Your task to perform on an android device: Open Android settings Image 0: 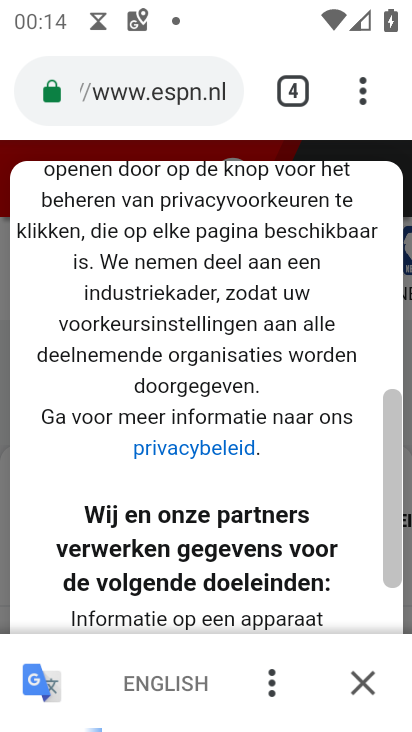
Step 0: press home button
Your task to perform on an android device: Open Android settings Image 1: 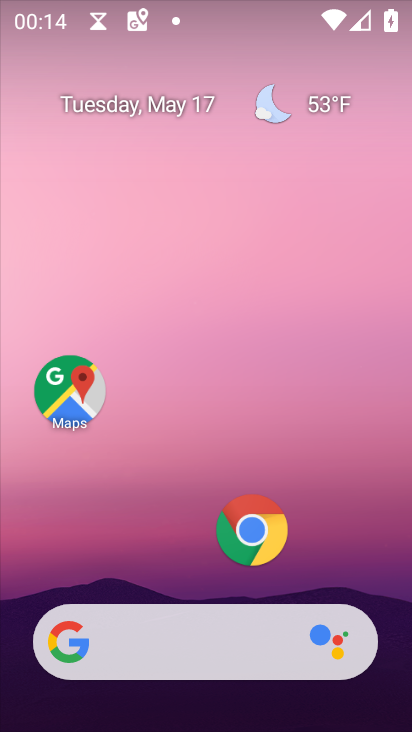
Step 1: drag from (290, 575) to (232, 63)
Your task to perform on an android device: Open Android settings Image 2: 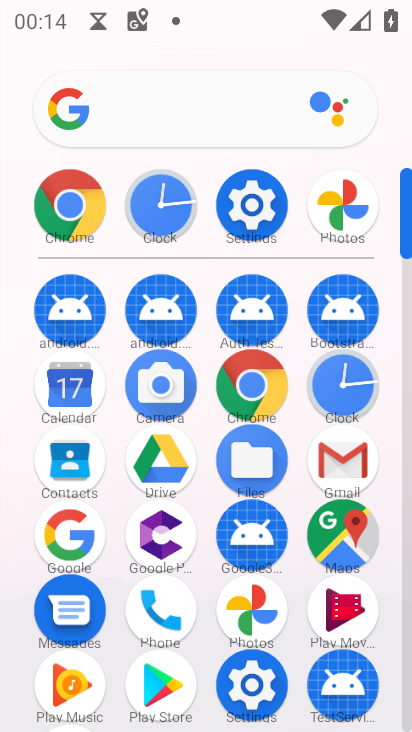
Step 2: click (258, 195)
Your task to perform on an android device: Open Android settings Image 3: 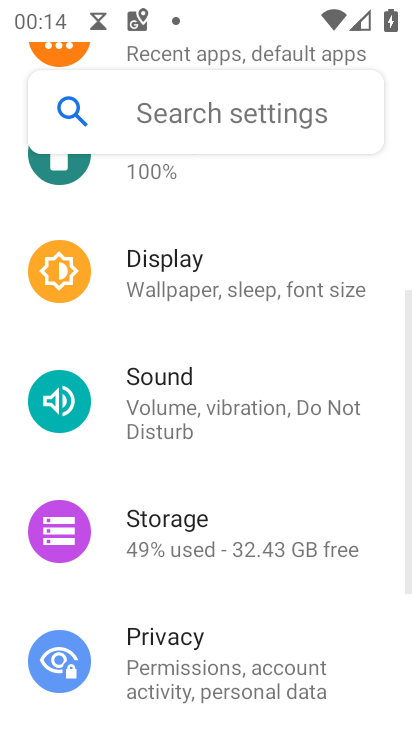
Step 3: drag from (251, 537) to (278, 371)
Your task to perform on an android device: Open Android settings Image 4: 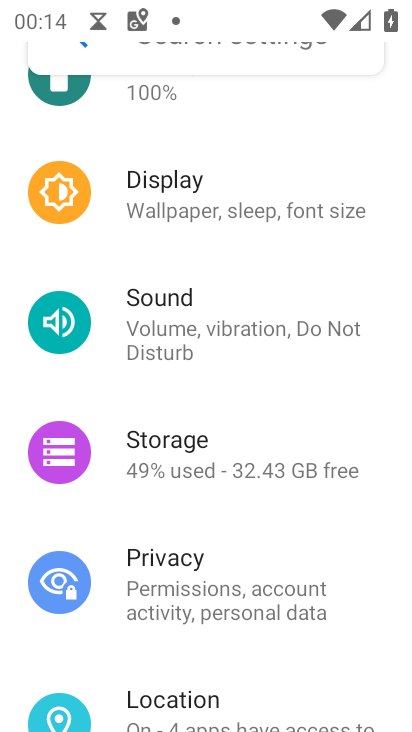
Step 4: drag from (290, 674) to (298, 485)
Your task to perform on an android device: Open Android settings Image 5: 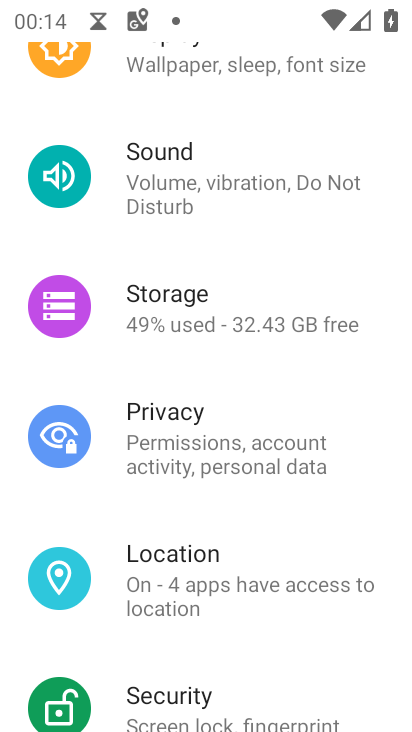
Step 5: drag from (290, 691) to (302, 422)
Your task to perform on an android device: Open Android settings Image 6: 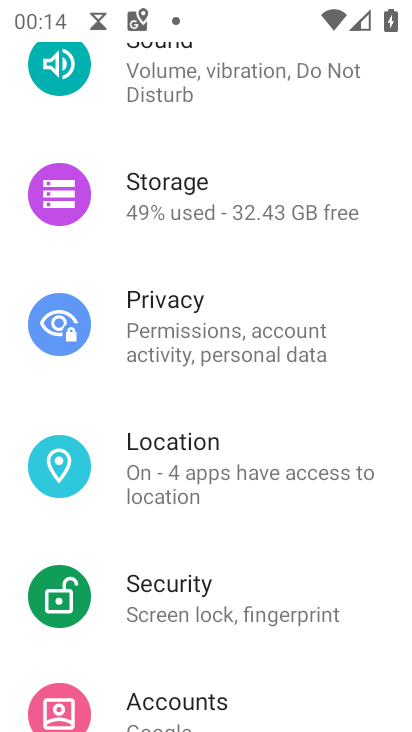
Step 6: drag from (362, 696) to (370, 230)
Your task to perform on an android device: Open Android settings Image 7: 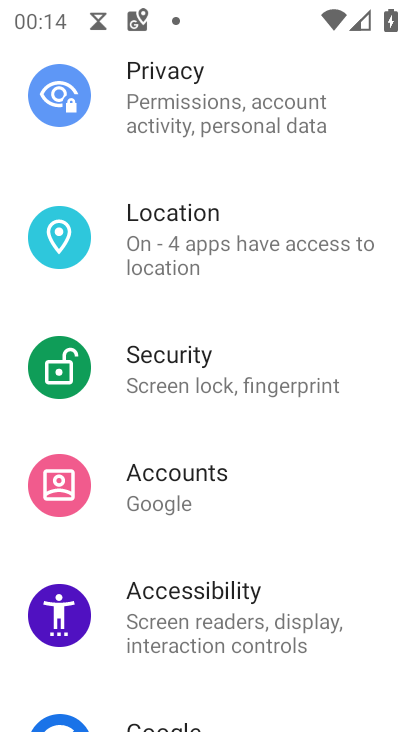
Step 7: drag from (372, 666) to (366, 388)
Your task to perform on an android device: Open Android settings Image 8: 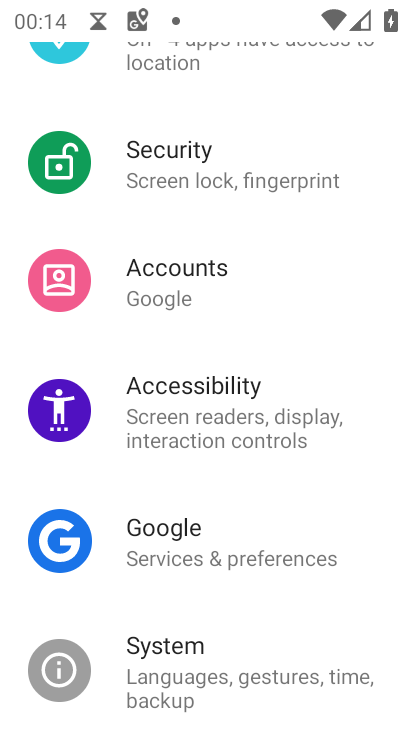
Step 8: drag from (321, 601) to (338, 313)
Your task to perform on an android device: Open Android settings Image 9: 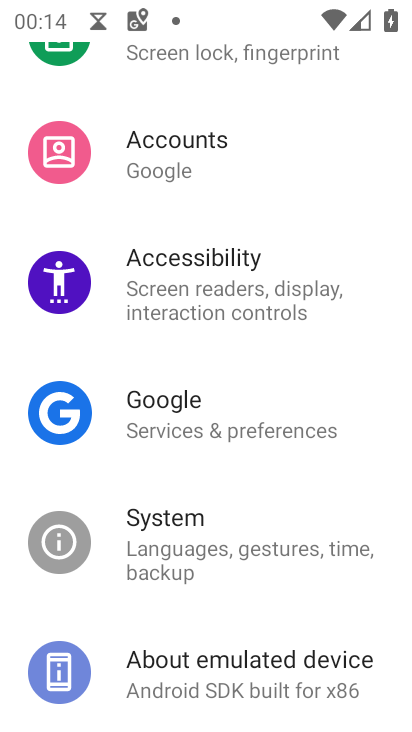
Step 9: click (298, 659)
Your task to perform on an android device: Open Android settings Image 10: 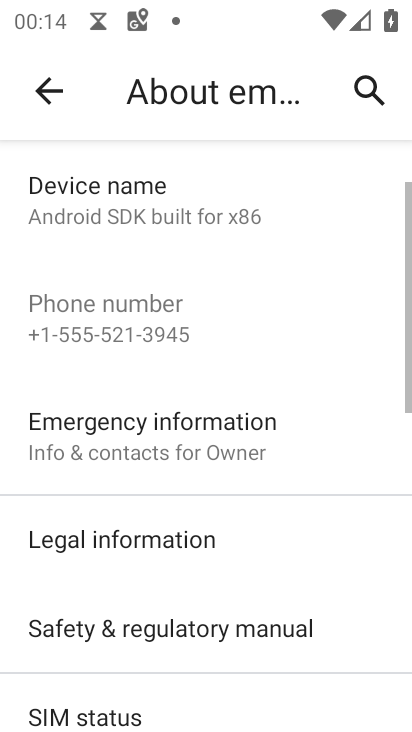
Step 10: drag from (304, 533) to (317, 129)
Your task to perform on an android device: Open Android settings Image 11: 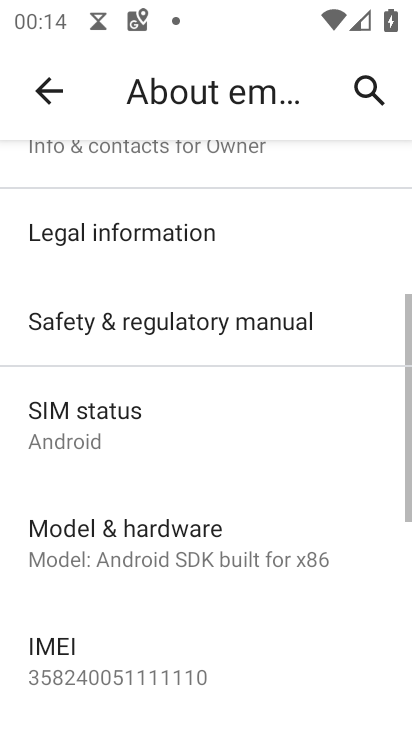
Step 11: drag from (185, 628) to (193, 346)
Your task to perform on an android device: Open Android settings Image 12: 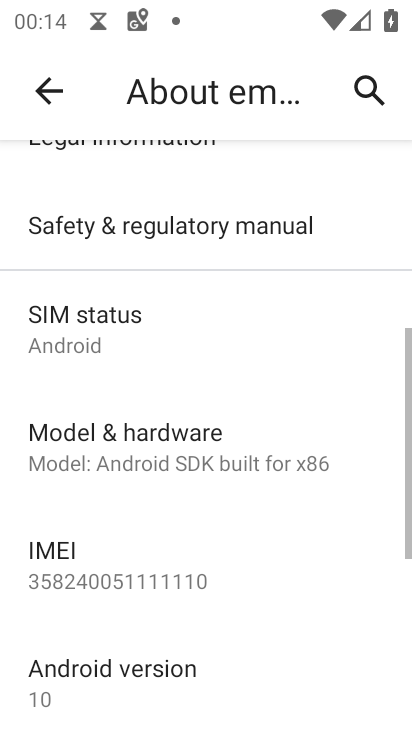
Step 12: click (164, 689)
Your task to perform on an android device: Open Android settings Image 13: 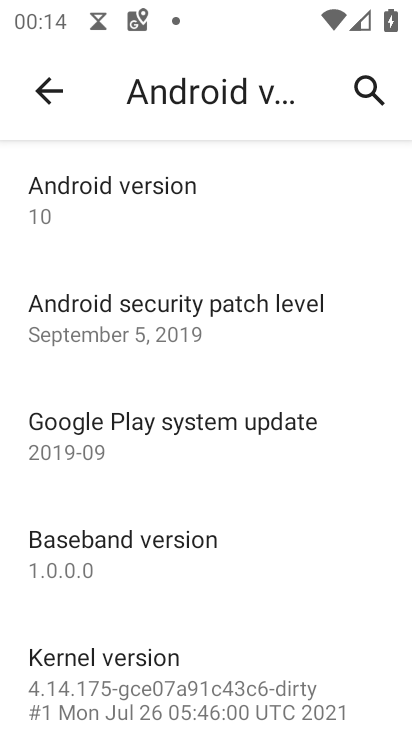
Step 13: task complete